Your task to perform on an android device: Open calendar and show me the second week of next month Image 0: 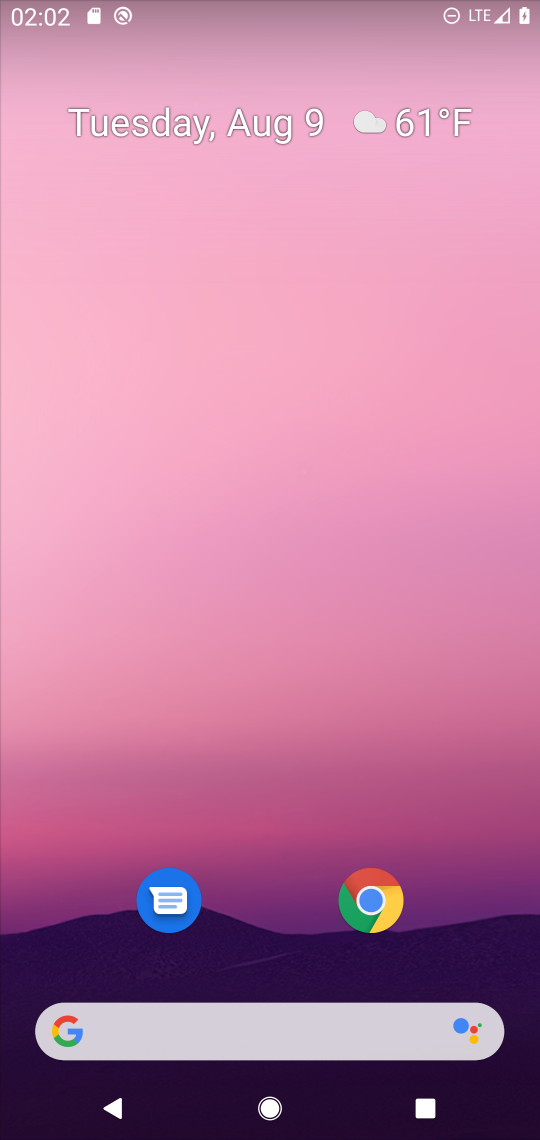
Step 0: press home button
Your task to perform on an android device: Open calendar and show me the second week of next month Image 1: 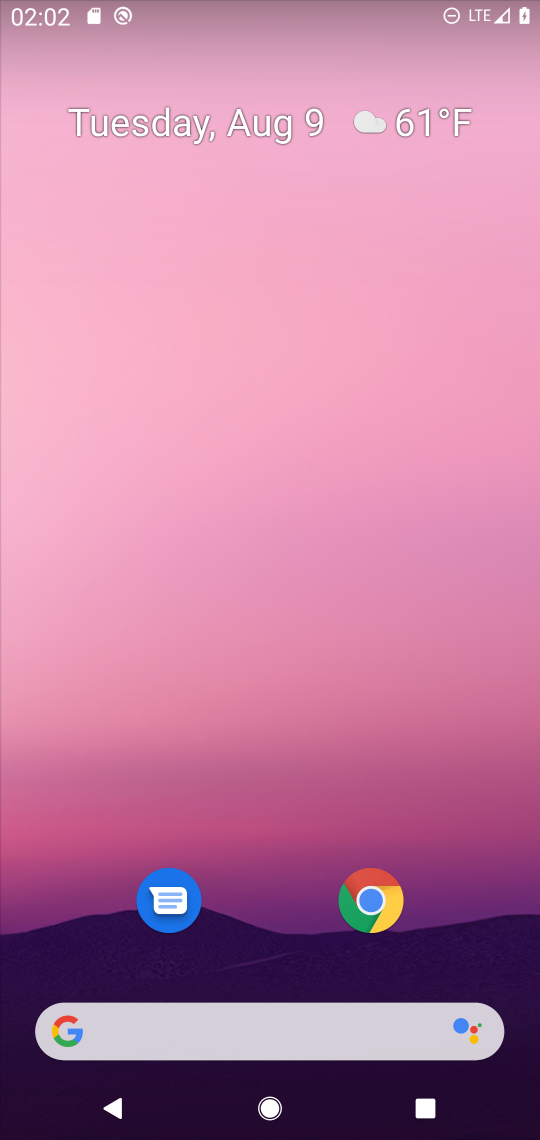
Step 1: drag from (470, 891) to (462, 41)
Your task to perform on an android device: Open calendar and show me the second week of next month Image 2: 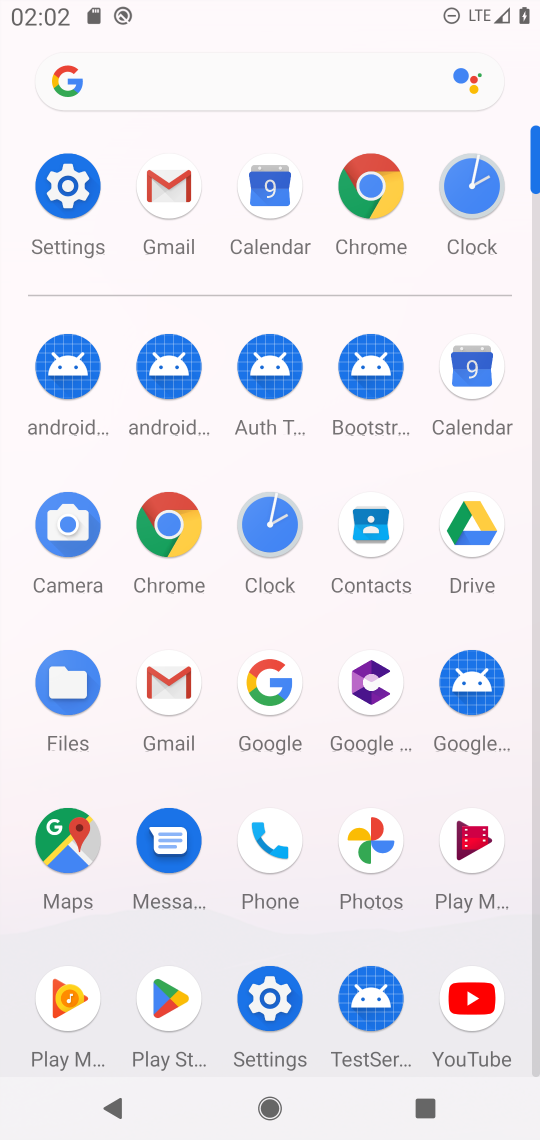
Step 2: click (465, 382)
Your task to perform on an android device: Open calendar and show me the second week of next month Image 3: 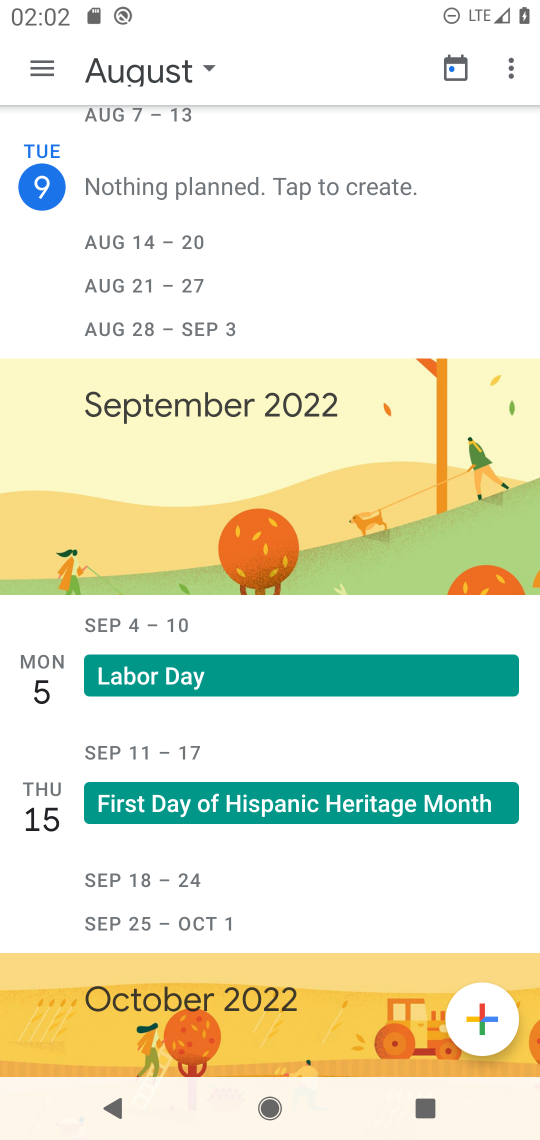
Step 3: click (202, 75)
Your task to perform on an android device: Open calendar and show me the second week of next month Image 4: 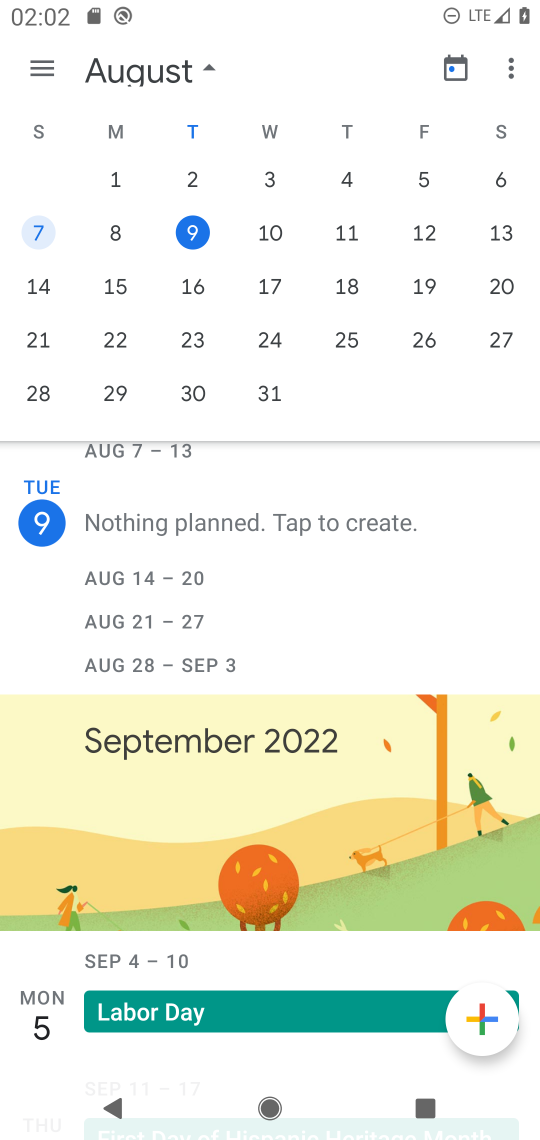
Step 4: drag from (512, 203) to (54, 169)
Your task to perform on an android device: Open calendar and show me the second week of next month Image 5: 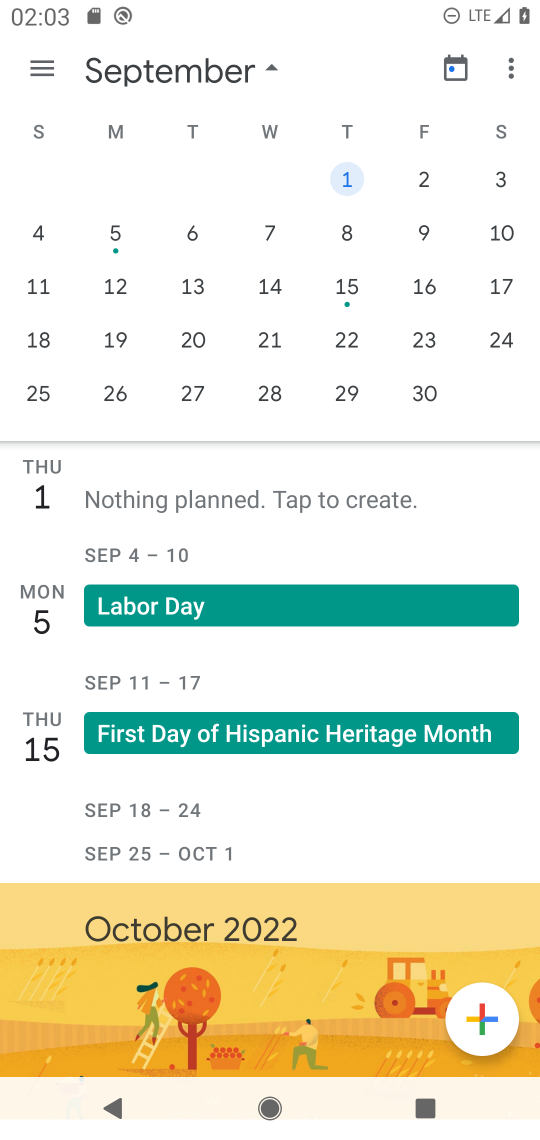
Step 5: click (117, 238)
Your task to perform on an android device: Open calendar and show me the second week of next month Image 6: 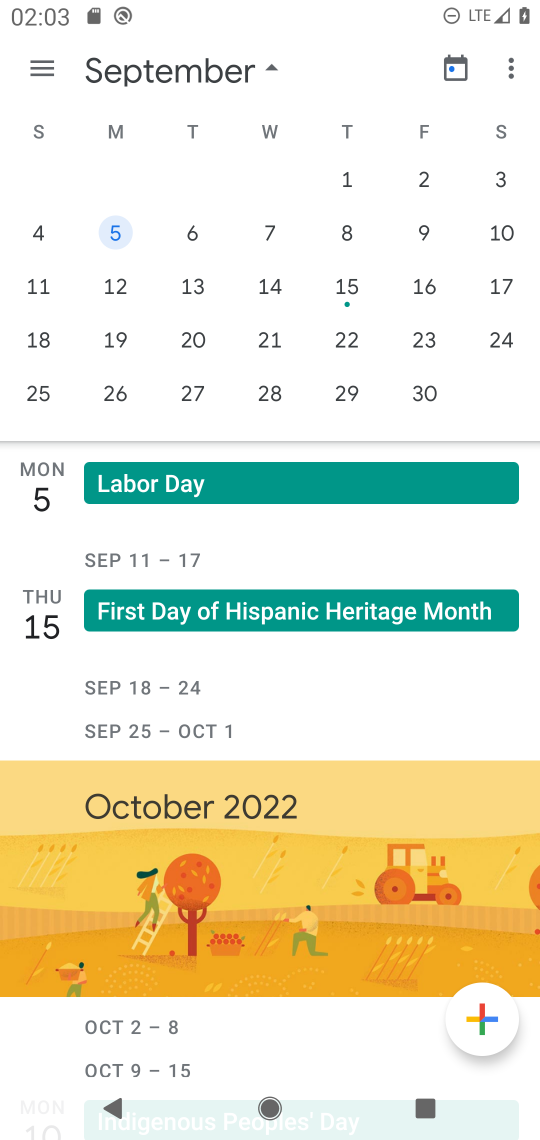
Step 6: task complete